Your task to perform on an android device: open sync settings in chrome Image 0: 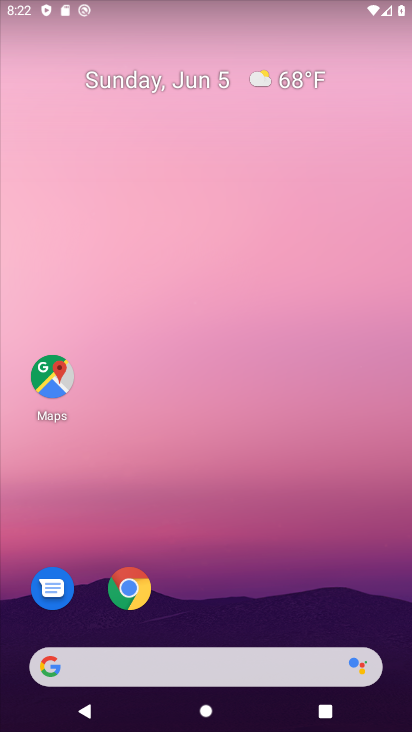
Step 0: click (119, 579)
Your task to perform on an android device: open sync settings in chrome Image 1: 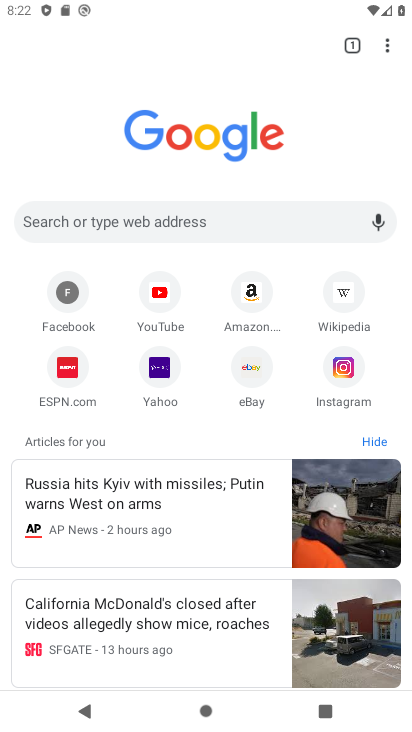
Step 1: click (386, 45)
Your task to perform on an android device: open sync settings in chrome Image 2: 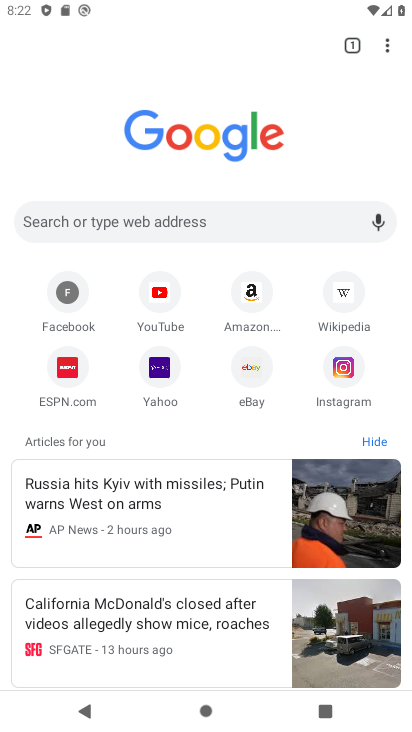
Step 2: click (386, 45)
Your task to perform on an android device: open sync settings in chrome Image 3: 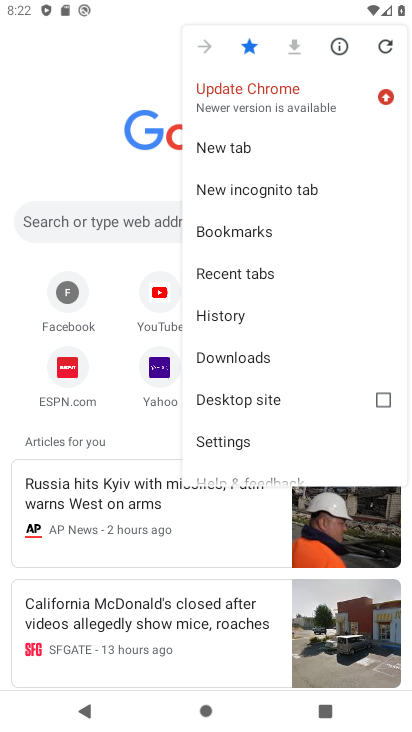
Step 3: click (261, 433)
Your task to perform on an android device: open sync settings in chrome Image 4: 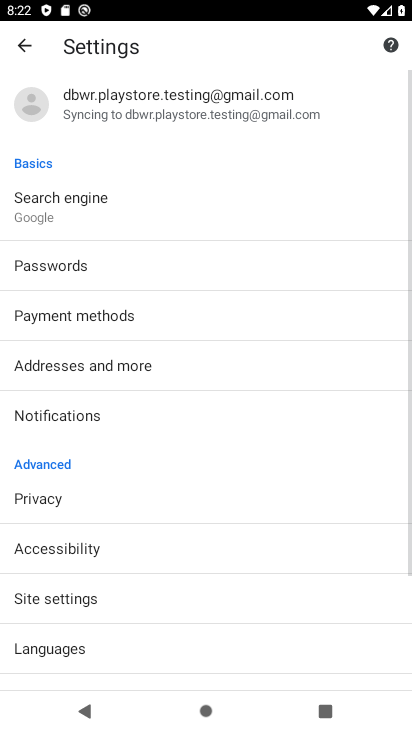
Step 4: click (131, 119)
Your task to perform on an android device: open sync settings in chrome Image 5: 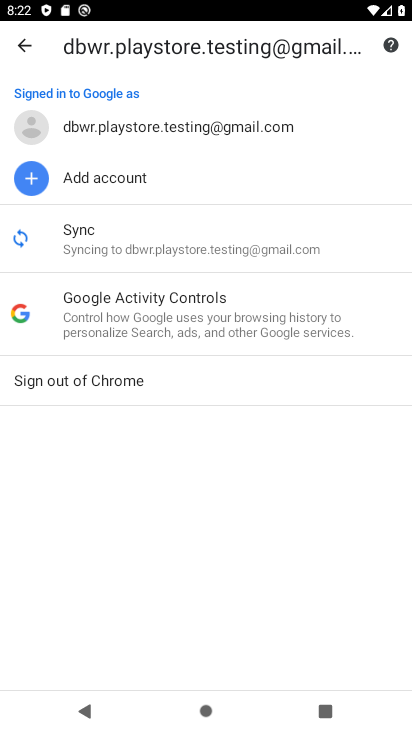
Step 5: click (104, 250)
Your task to perform on an android device: open sync settings in chrome Image 6: 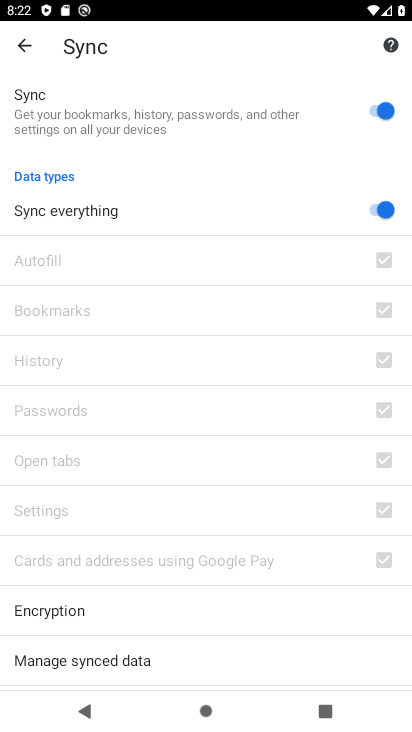
Step 6: task complete